Your task to perform on an android device: Open Wikipedia Image 0: 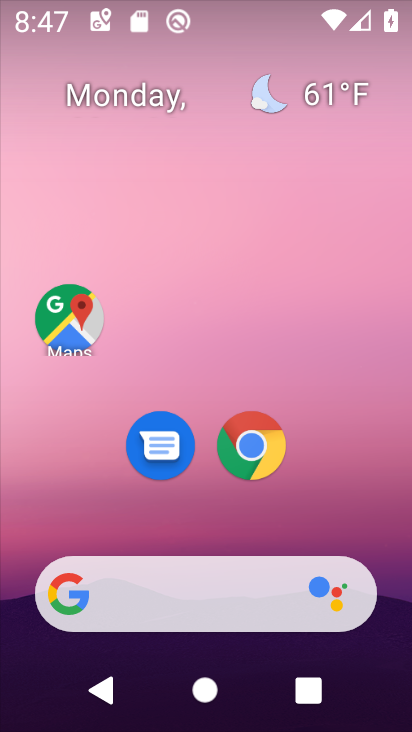
Step 0: press home button
Your task to perform on an android device: Open Wikipedia Image 1: 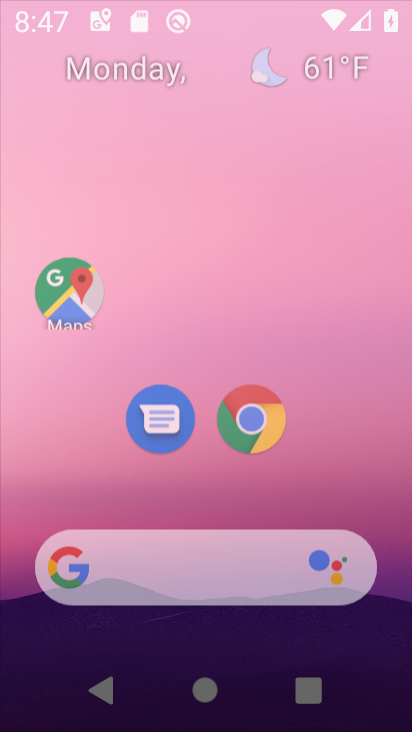
Step 1: drag from (210, 523) to (201, 87)
Your task to perform on an android device: Open Wikipedia Image 2: 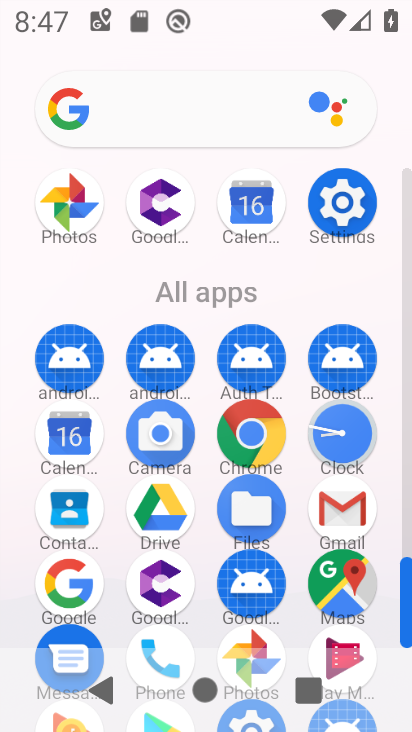
Step 2: click (337, 427)
Your task to perform on an android device: Open Wikipedia Image 3: 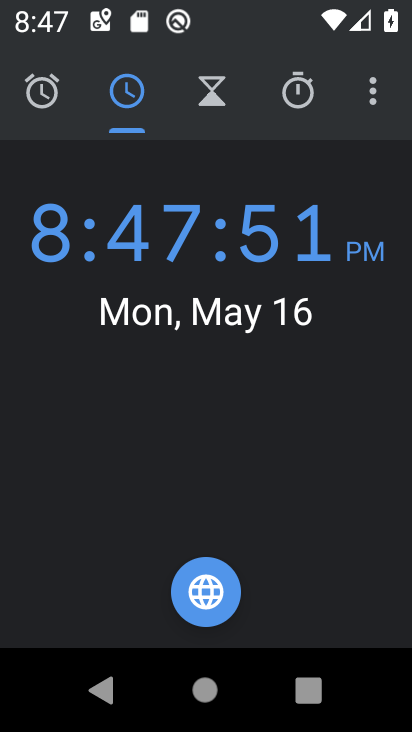
Step 3: click (370, 98)
Your task to perform on an android device: Open Wikipedia Image 4: 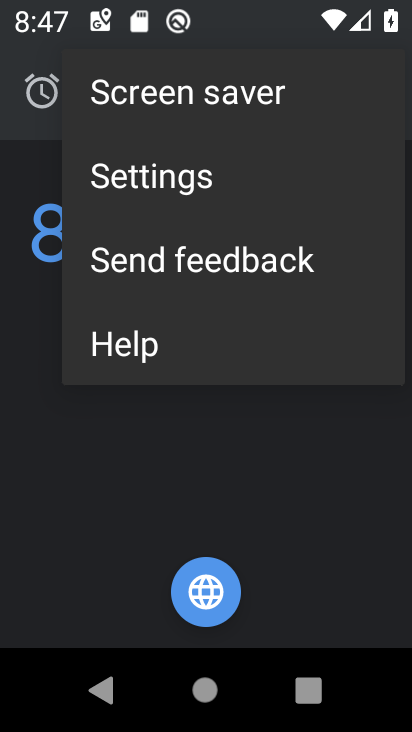
Step 4: click (230, 184)
Your task to perform on an android device: Open Wikipedia Image 5: 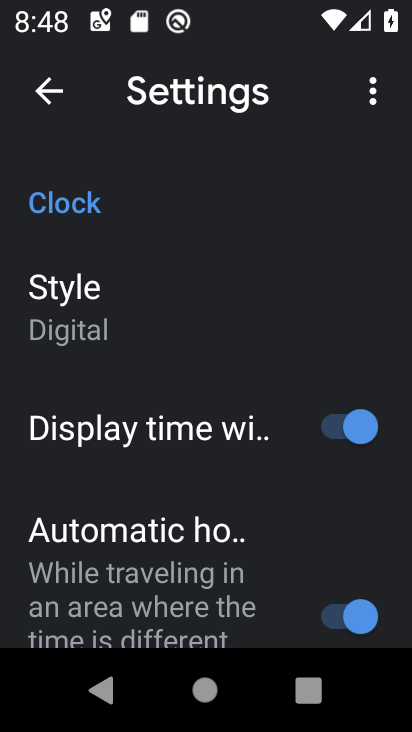
Step 5: drag from (270, 622) to (271, 171)
Your task to perform on an android device: Open Wikipedia Image 6: 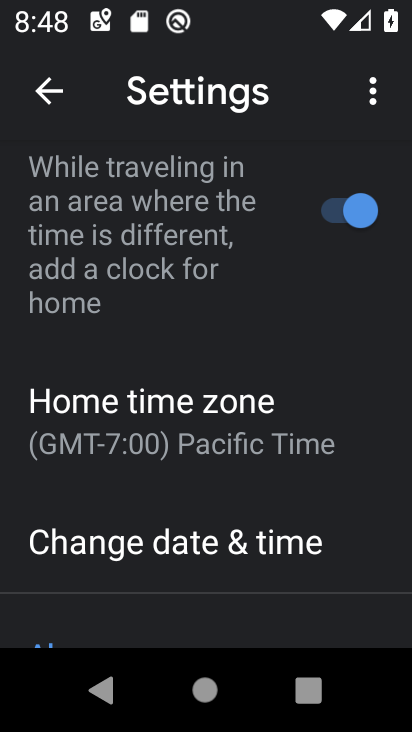
Step 6: drag from (166, 601) to (202, 8)
Your task to perform on an android device: Open Wikipedia Image 7: 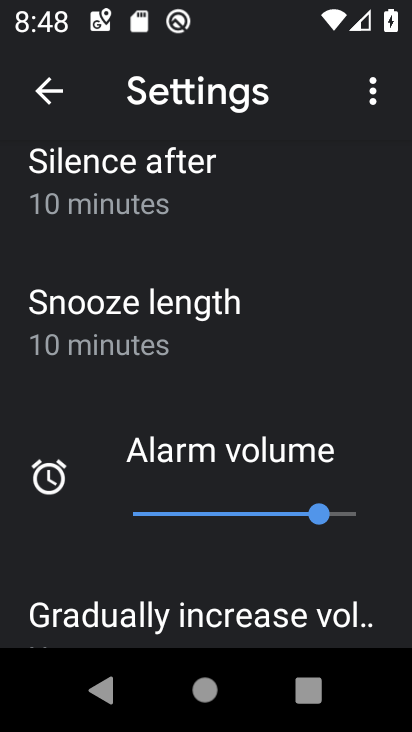
Step 7: drag from (184, 566) to (205, 20)
Your task to perform on an android device: Open Wikipedia Image 8: 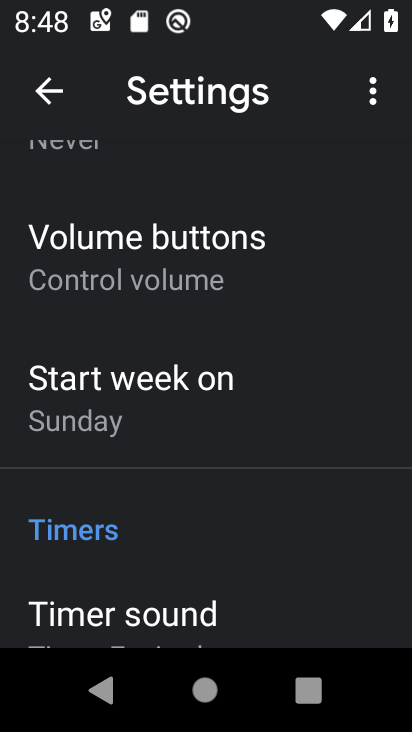
Step 8: click (229, 614)
Your task to perform on an android device: Open Wikipedia Image 9: 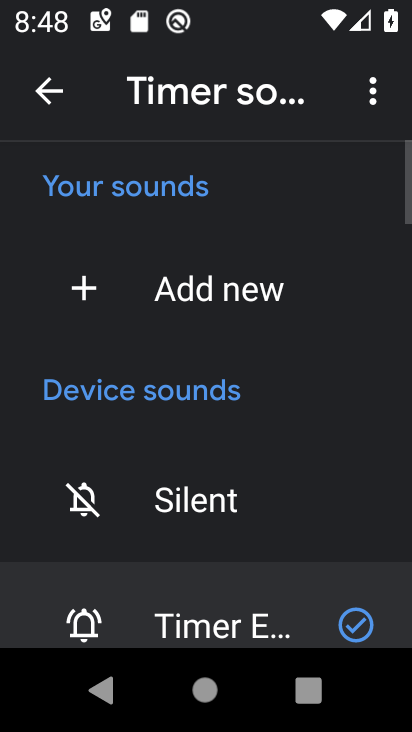
Step 9: drag from (211, 590) to (246, 132)
Your task to perform on an android device: Open Wikipedia Image 10: 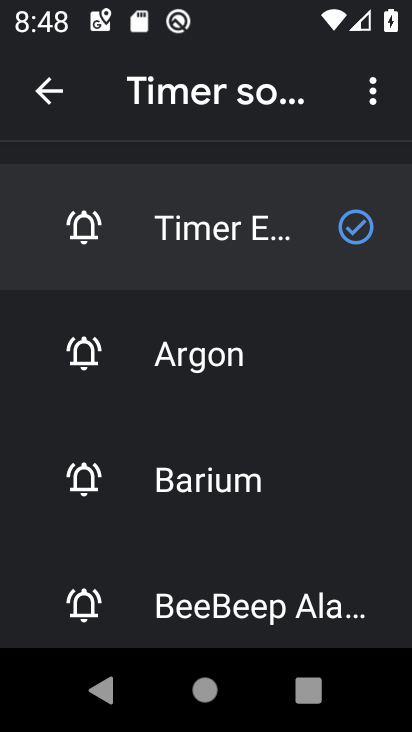
Step 10: click (253, 473)
Your task to perform on an android device: Open Wikipedia Image 11: 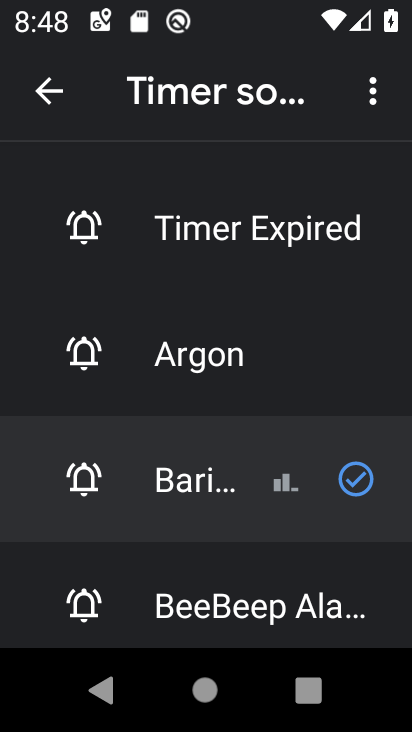
Step 11: task complete